Your task to perform on an android device: see sites visited before in the chrome app Image 0: 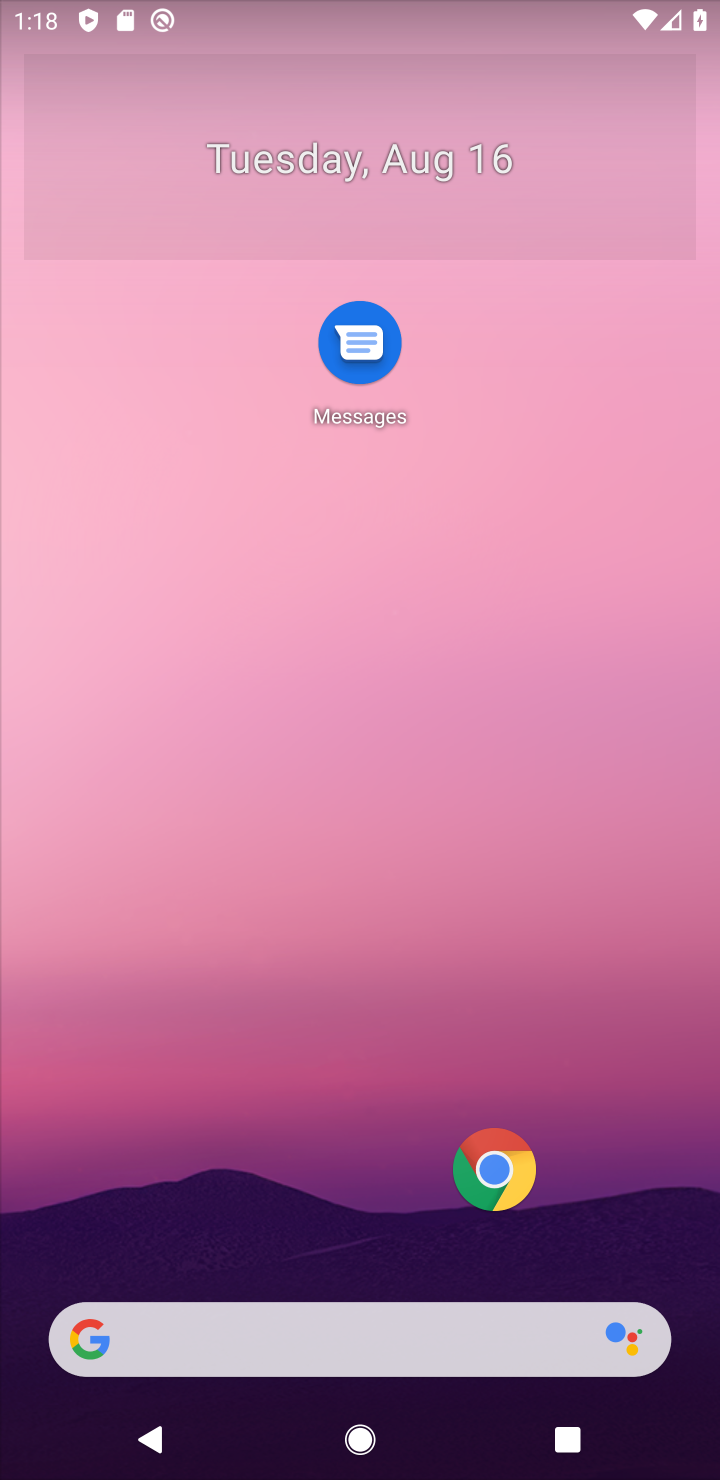
Step 0: click (510, 1202)
Your task to perform on an android device: see sites visited before in the chrome app Image 1: 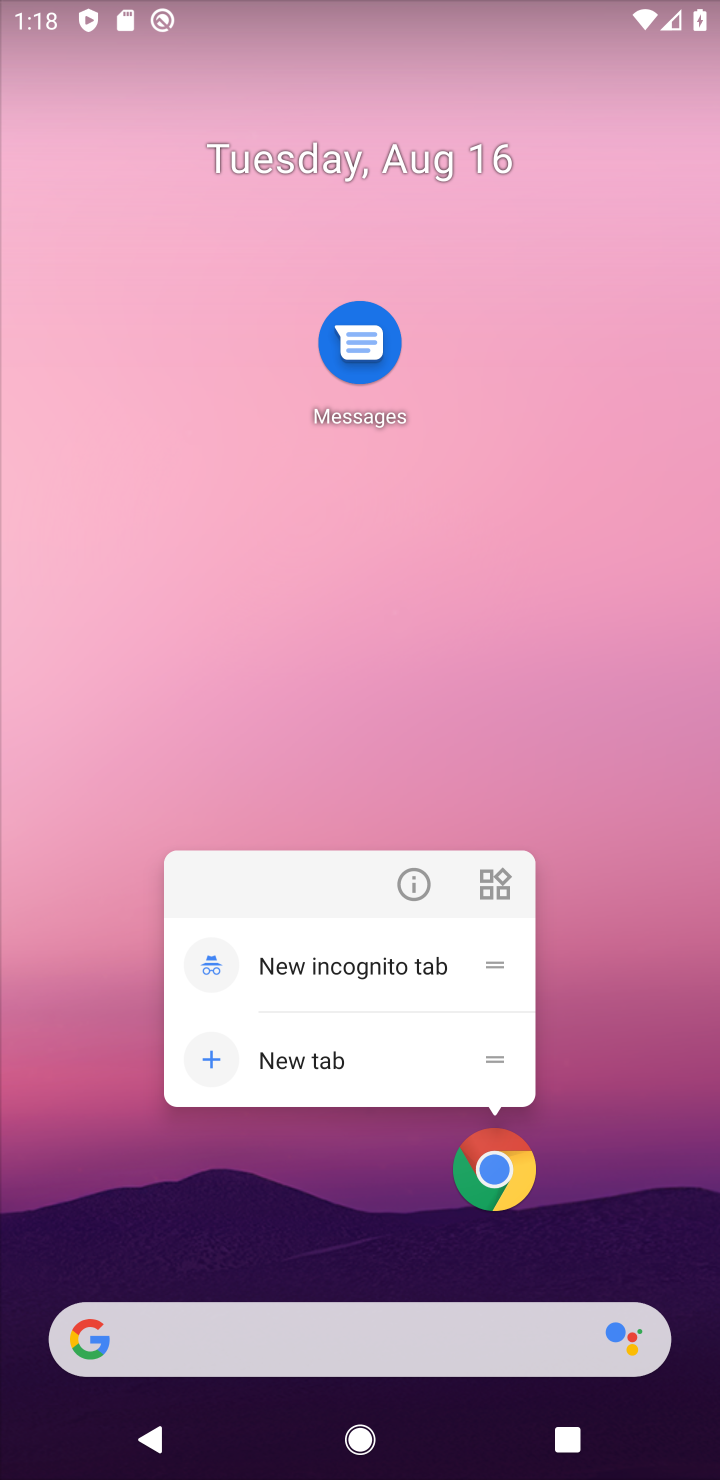
Step 1: click (510, 1202)
Your task to perform on an android device: see sites visited before in the chrome app Image 2: 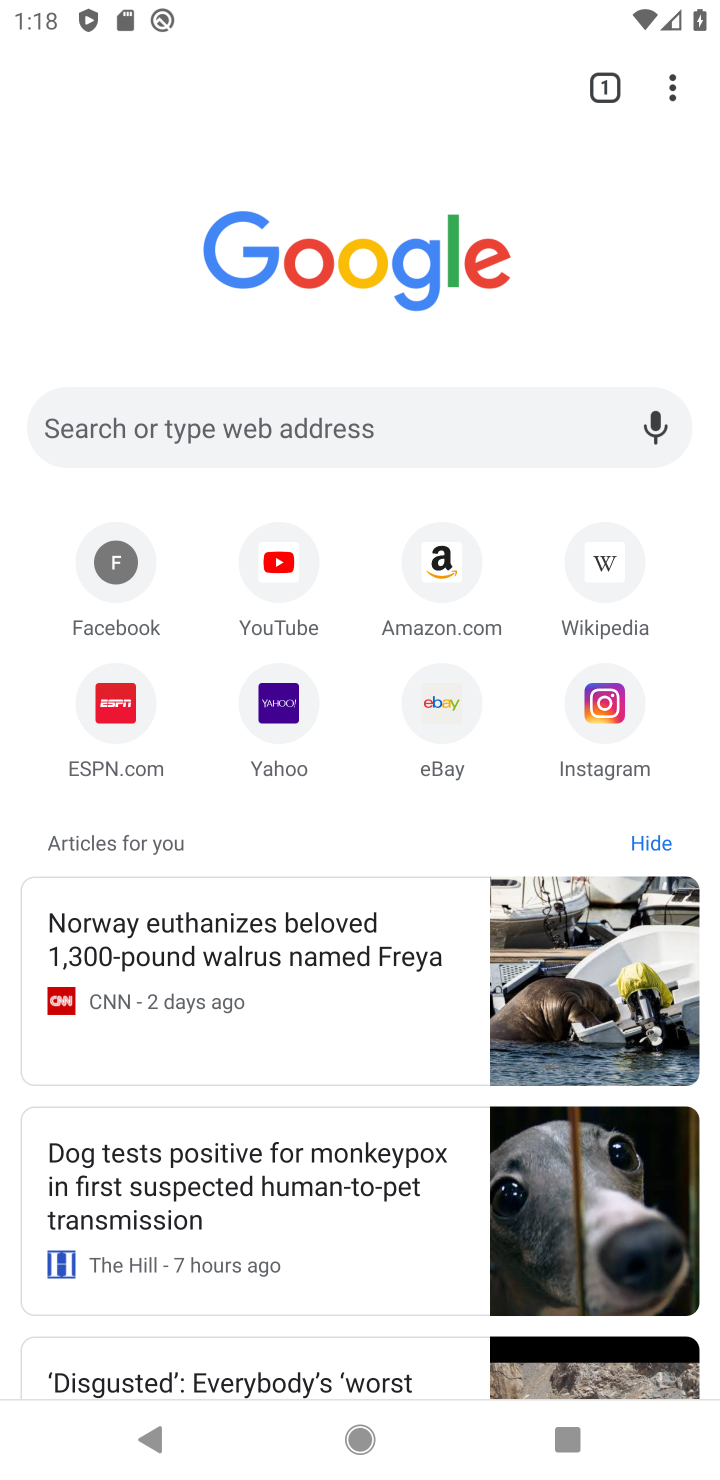
Step 2: click (674, 93)
Your task to perform on an android device: see sites visited before in the chrome app Image 3: 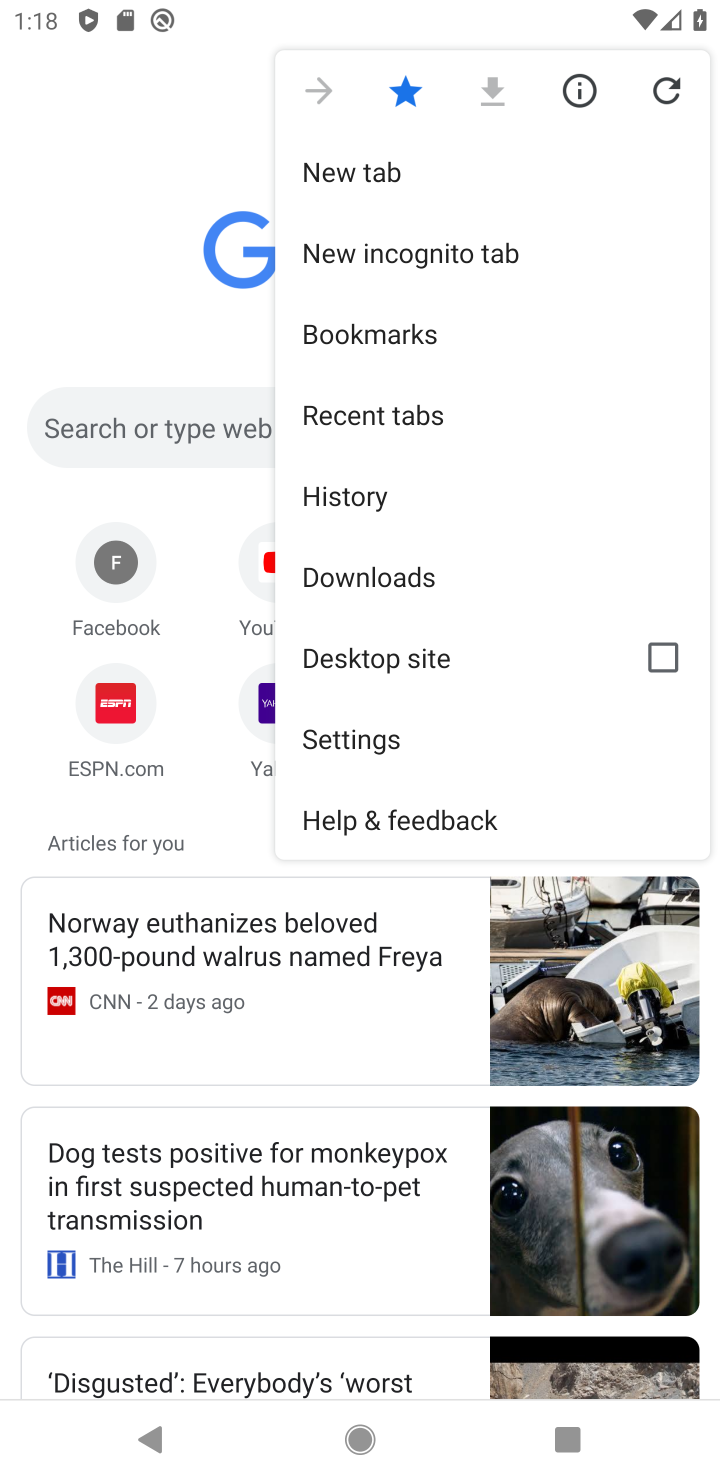
Step 3: click (343, 740)
Your task to perform on an android device: see sites visited before in the chrome app Image 4: 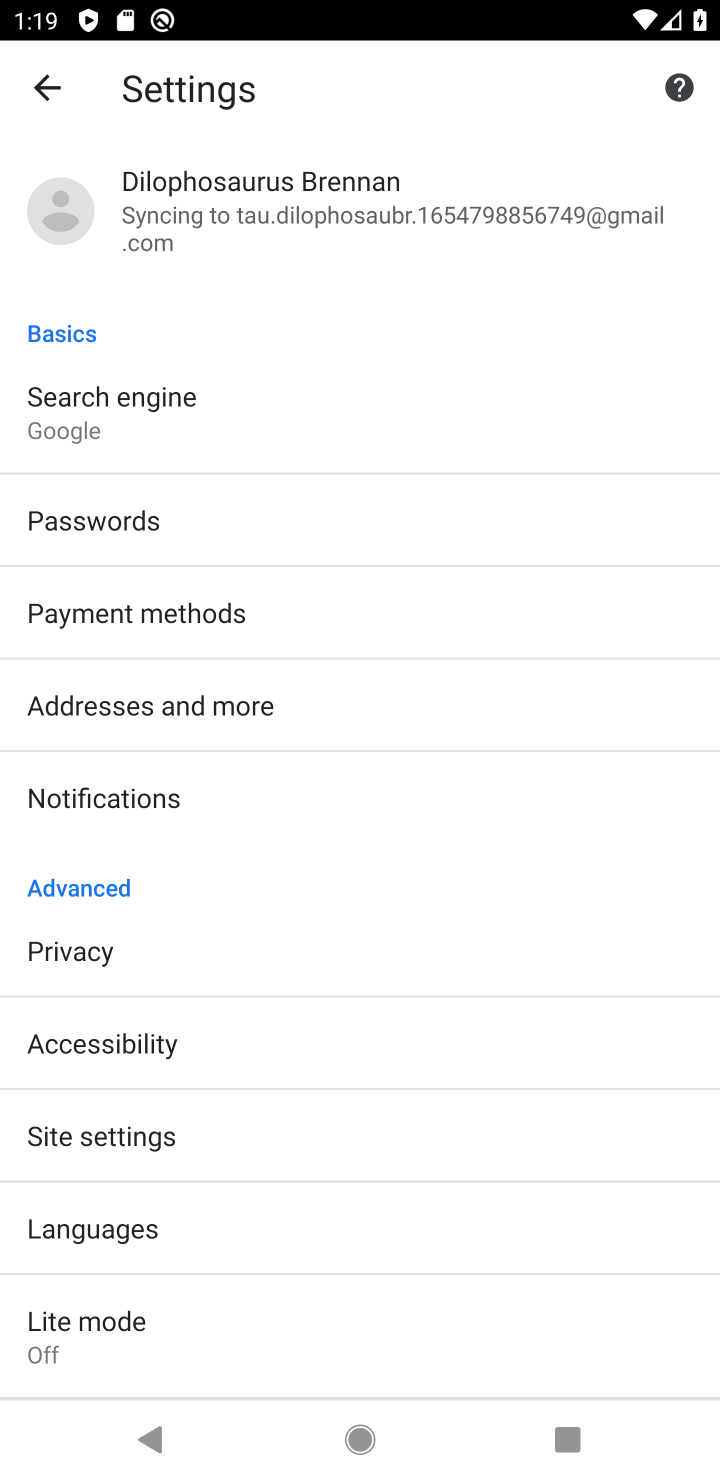
Step 4: click (130, 1134)
Your task to perform on an android device: see sites visited before in the chrome app Image 5: 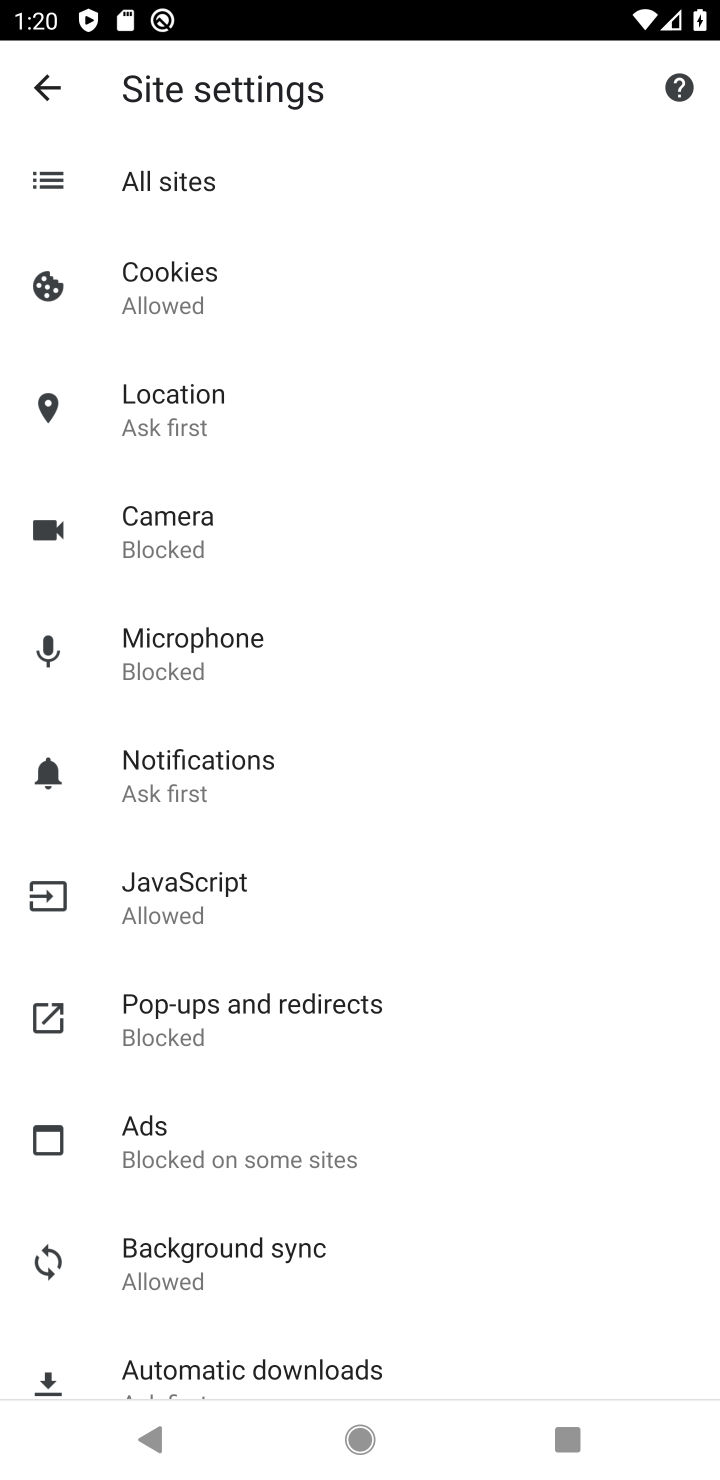
Step 5: task complete